Your task to perform on an android device: open sync settings in chrome Image 0: 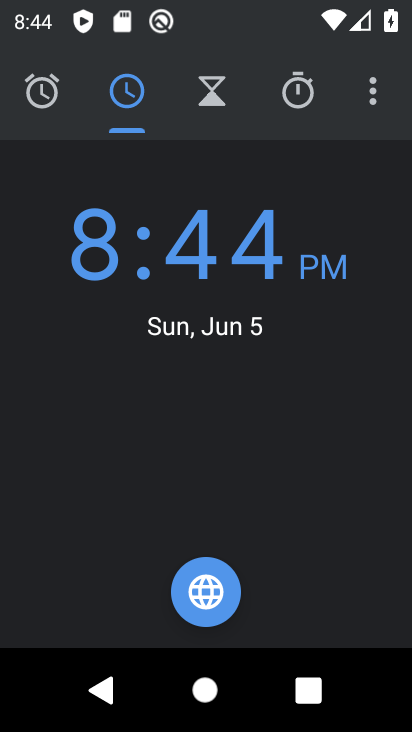
Step 0: press home button
Your task to perform on an android device: open sync settings in chrome Image 1: 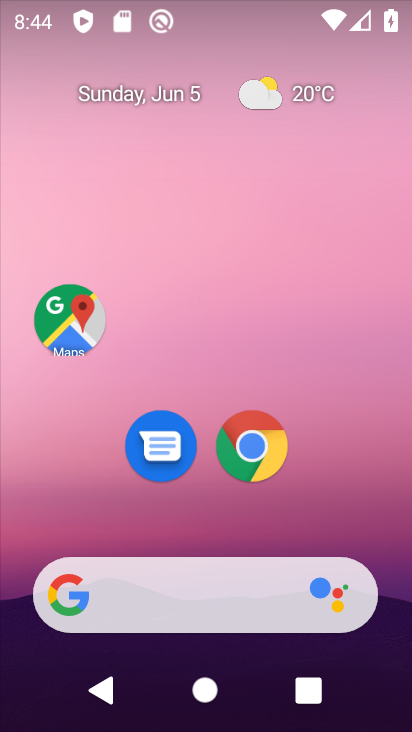
Step 1: click (260, 460)
Your task to perform on an android device: open sync settings in chrome Image 2: 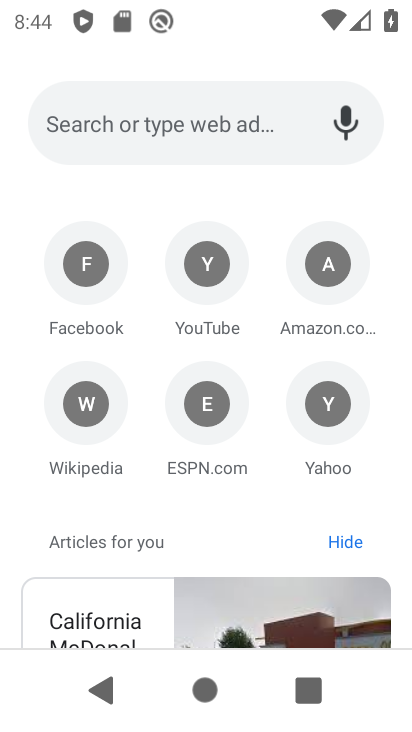
Step 2: press back button
Your task to perform on an android device: open sync settings in chrome Image 3: 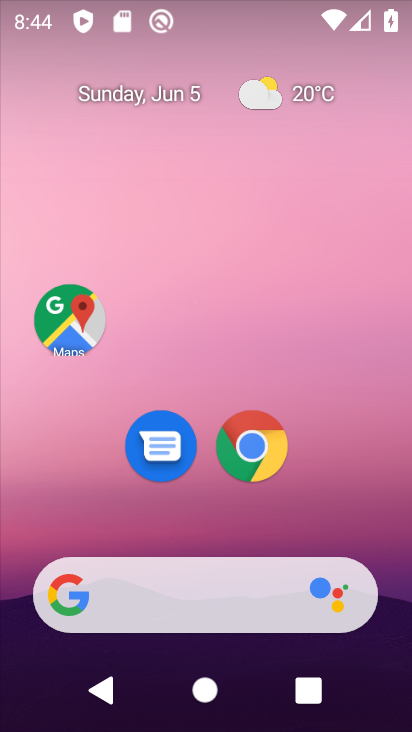
Step 3: click (259, 432)
Your task to perform on an android device: open sync settings in chrome Image 4: 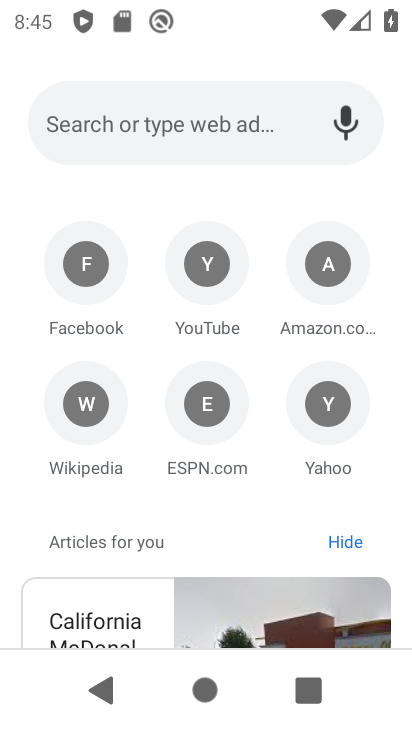
Step 4: task complete